Your task to perform on an android device: star an email in the gmail app Image 0: 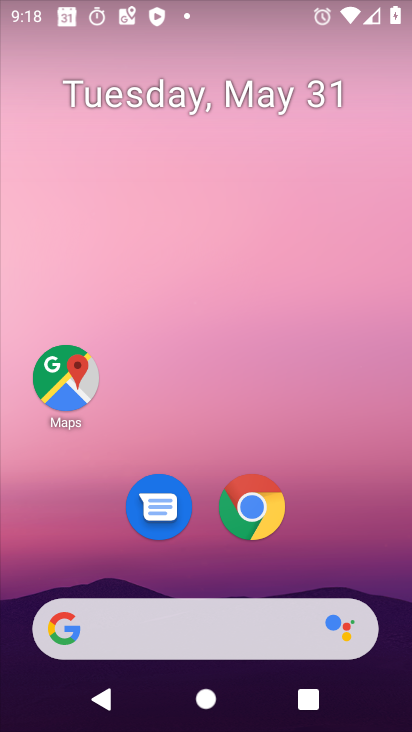
Step 0: drag from (364, 589) to (350, 26)
Your task to perform on an android device: star an email in the gmail app Image 1: 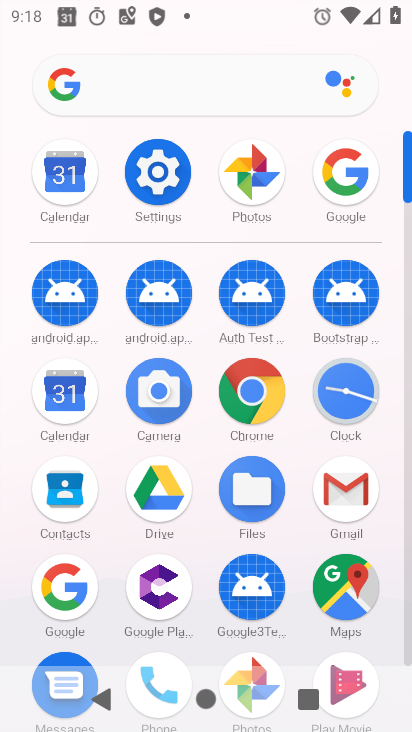
Step 1: click (354, 492)
Your task to perform on an android device: star an email in the gmail app Image 2: 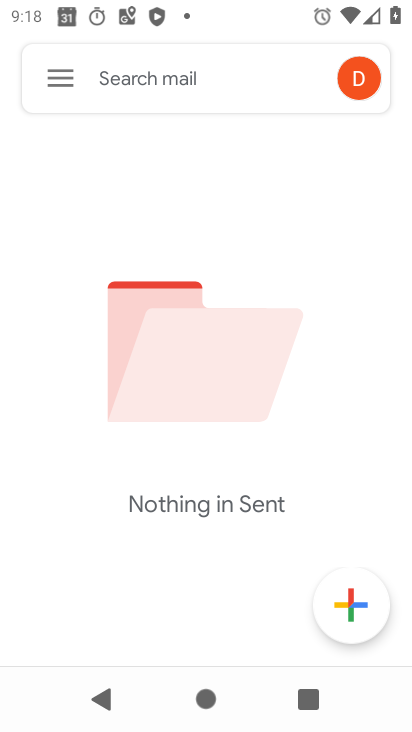
Step 2: click (51, 79)
Your task to perform on an android device: star an email in the gmail app Image 3: 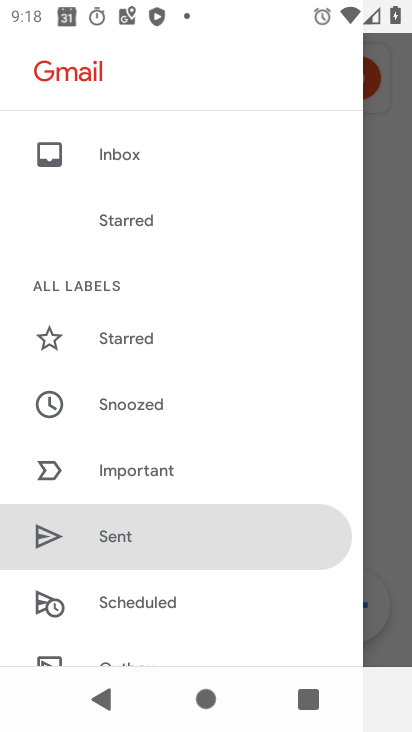
Step 3: drag from (179, 492) to (162, 193)
Your task to perform on an android device: star an email in the gmail app Image 4: 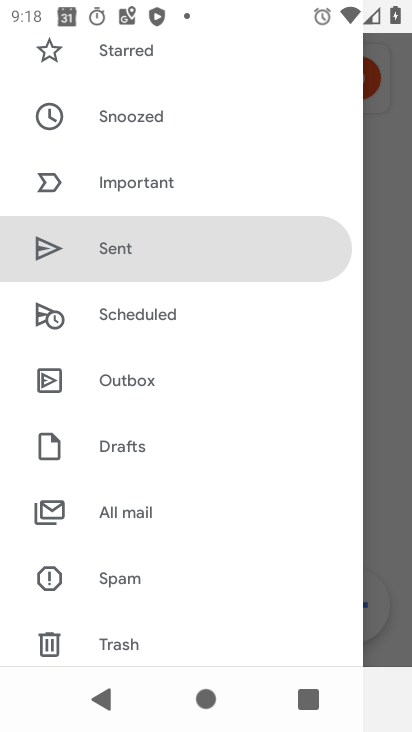
Step 4: click (117, 510)
Your task to perform on an android device: star an email in the gmail app Image 5: 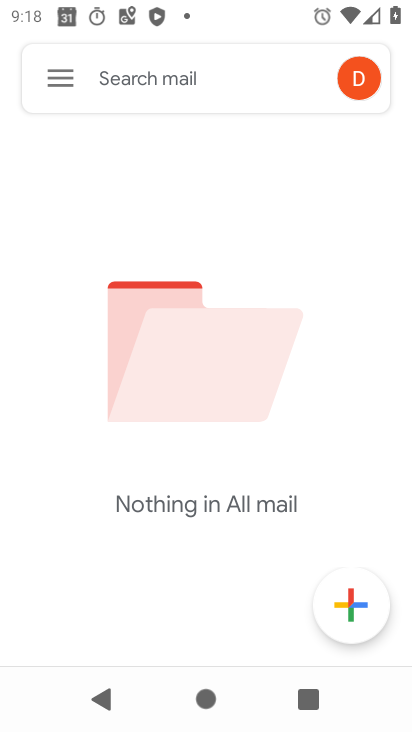
Step 5: task complete